Your task to perform on an android device: change notification settings in the gmail app Image 0: 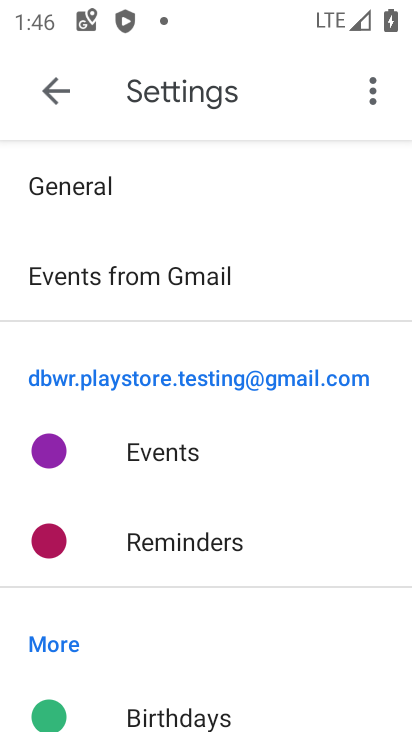
Step 0: press home button
Your task to perform on an android device: change notification settings in the gmail app Image 1: 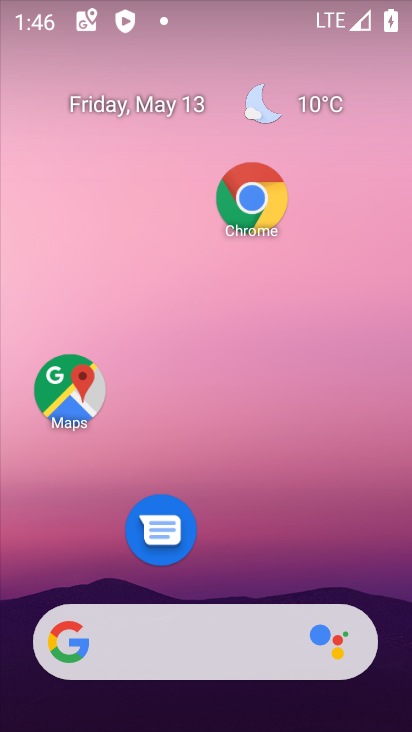
Step 1: drag from (236, 586) to (167, 0)
Your task to perform on an android device: change notification settings in the gmail app Image 2: 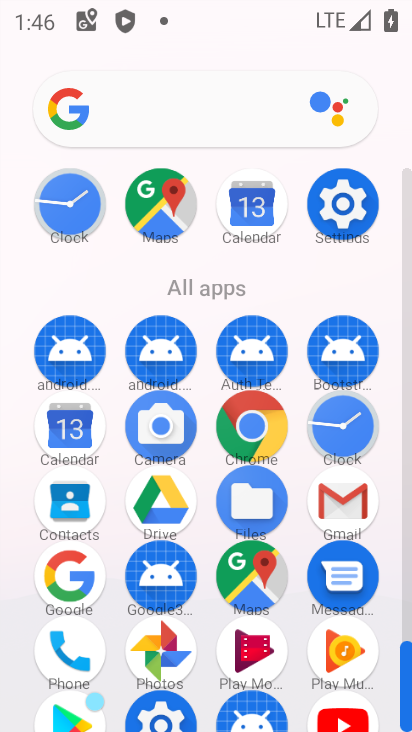
Step 2: click (329, 502)
Your task to perform on an android device: change notification settings in the gmail app Image 3: 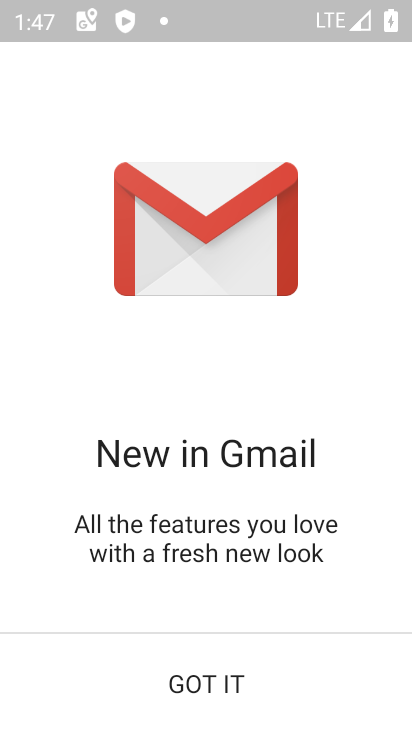
Step 3: click (204, 660)
Your task to perform on an android device: change notification settings in the gmail app Image 4: 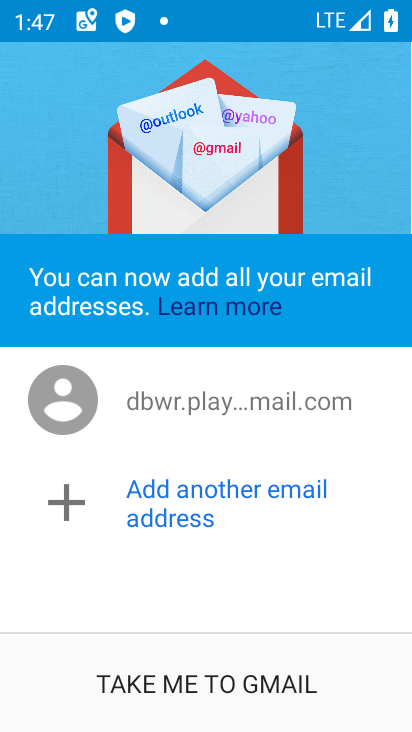
Step 4: click (228, 677)
Your task to perform on an android device: change notification settings in the gmail app Image 5: 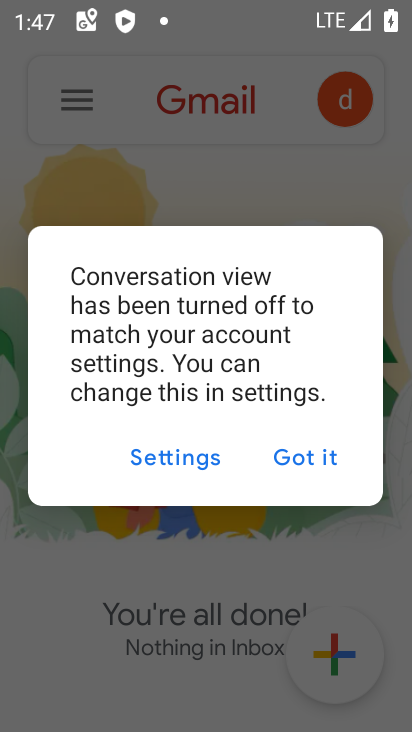
Step 5: click (295, 459)
Your task to perform on an android device: change notification settings in the gmail app Image 6: 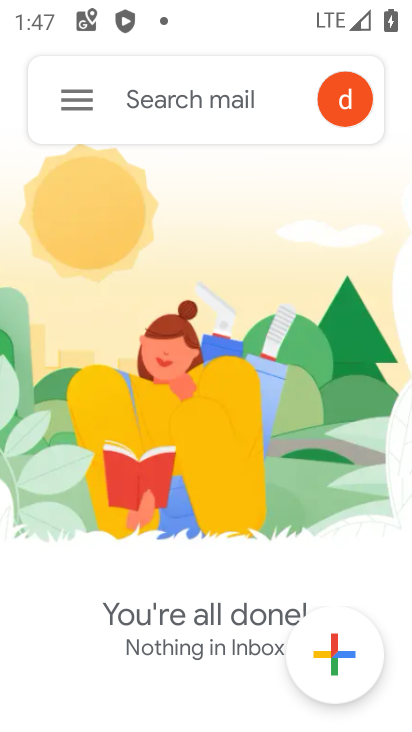
Step 6: click (89, 91)
Your task to perform on an android device: change notification settings in the gmail app Image 7: 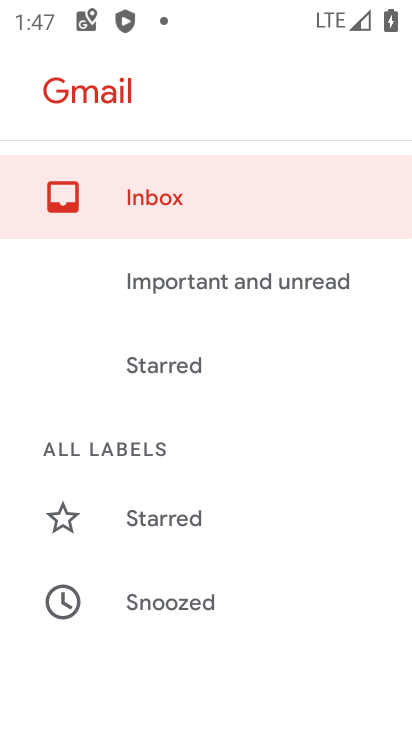
Step 7: drag from (219, 544) to (174, 149)
Your task to perform on an android device: change notification settings in the gmail app Image 8: 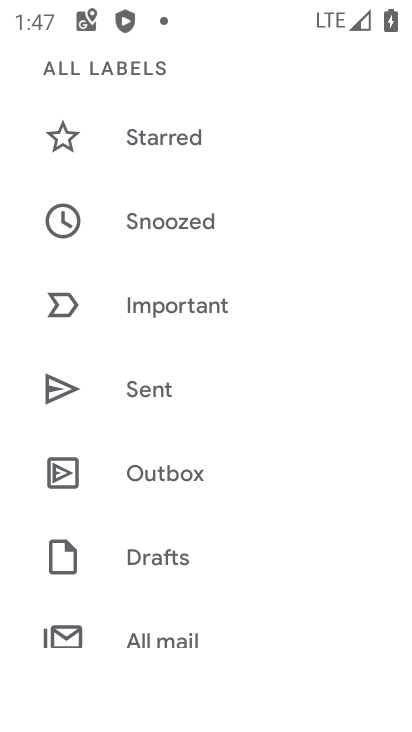
Step 8: drag from (171, 576) to (131, 118)
Your task to perform on an android device: change notification settings in the gmail app Image 9: 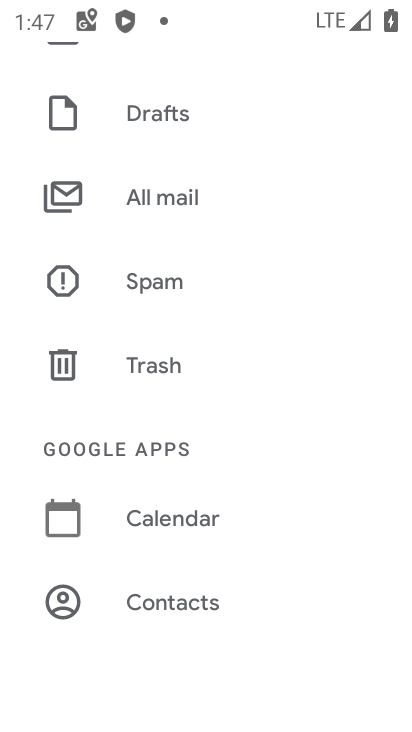
Step 9: drag from (172, 592) to (124, 116)
Your task to perform on an android device: change notification settings in the gmail app Image 10: 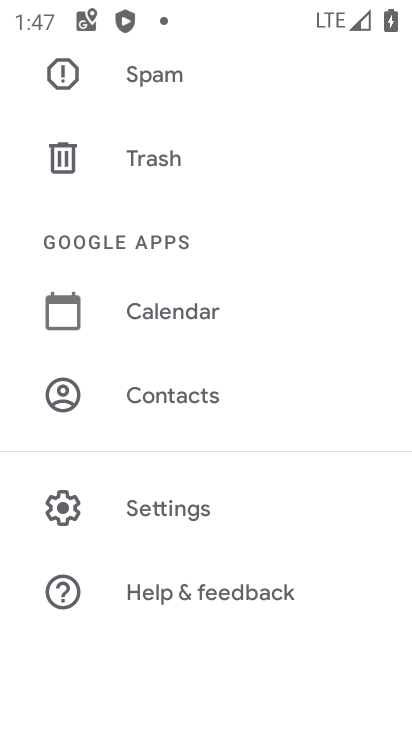
Step 10: click (176, 503)
Your task to perform on an android device: change notification settings in the gmail app Image 11: 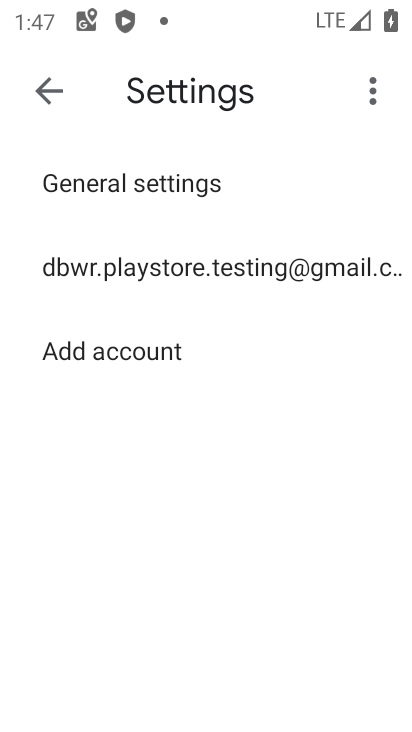
Step 11: click (112, 198)
Your task to perform on an android device: change notification settings in the gmail app Image 12: 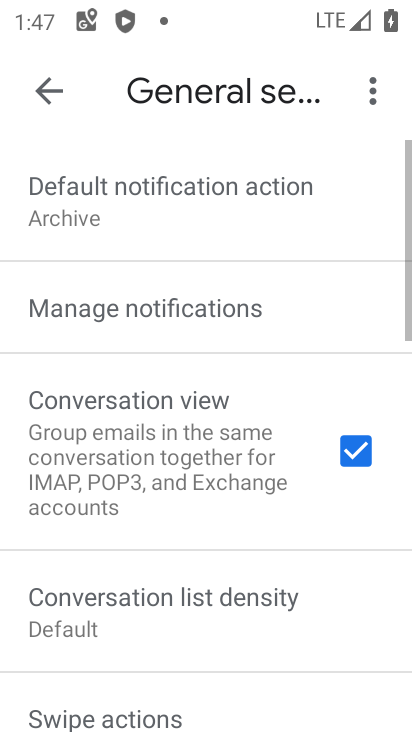
Step 12: click (178, 332)
Your task to perform on an android device: change notification settings in the gmail app Image 13: 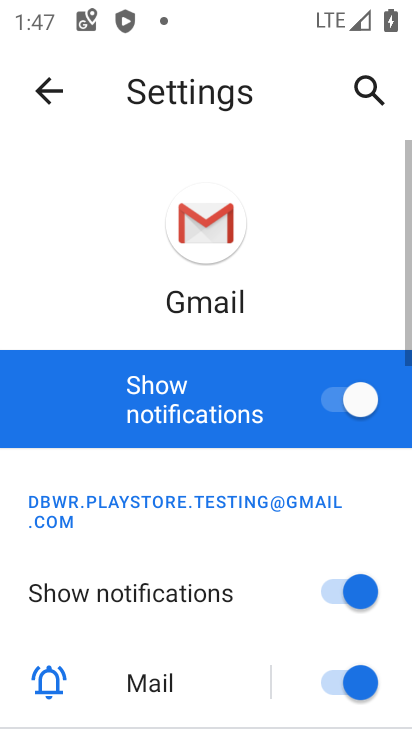
Step 13: click (367, 428)
Your task to perform on an android device: change notification settings in the gmail app Image 14: 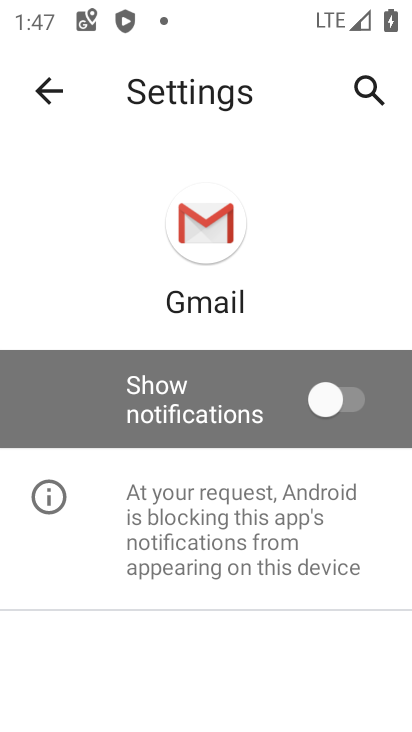
Step 14: task complete